Your task to perform on an android device: Open display settings Image 0: 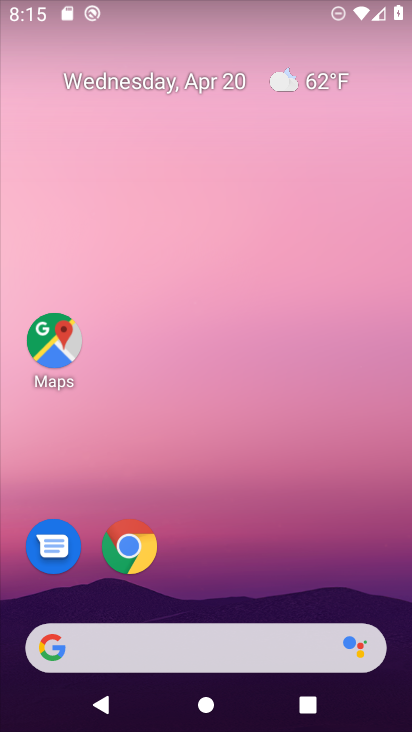
Step 0: drag from (273, 545) to (270, 104)
Your task to perform on an android device: Open display settings Image 1: 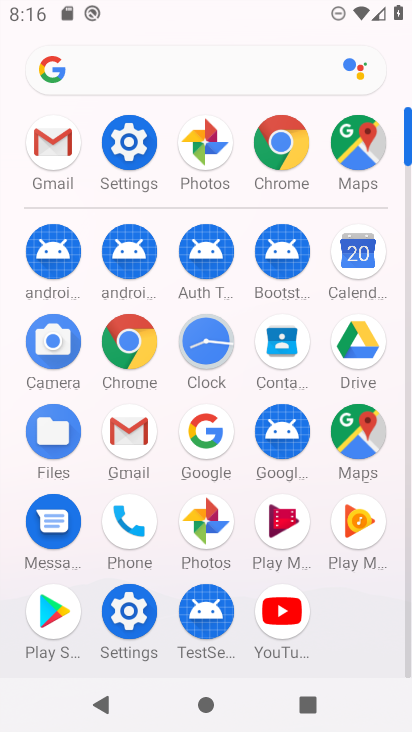
Step 1: click (137, 149)
Your task to perform on an android device: Open display settings Image 2: 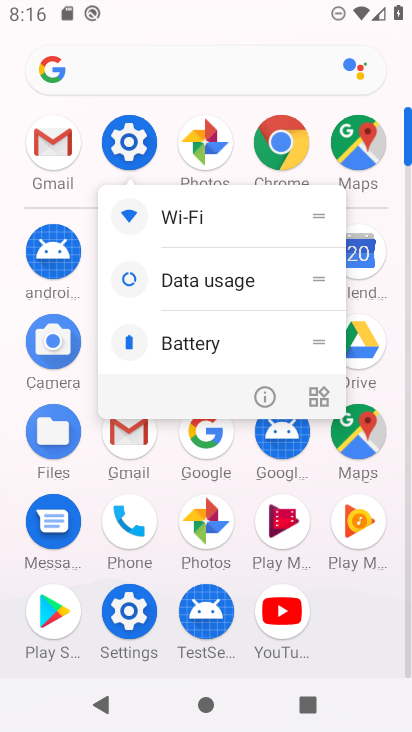
Step 2: click (132, 125)
Your task to perform on an android device: Open display settings Image 3: 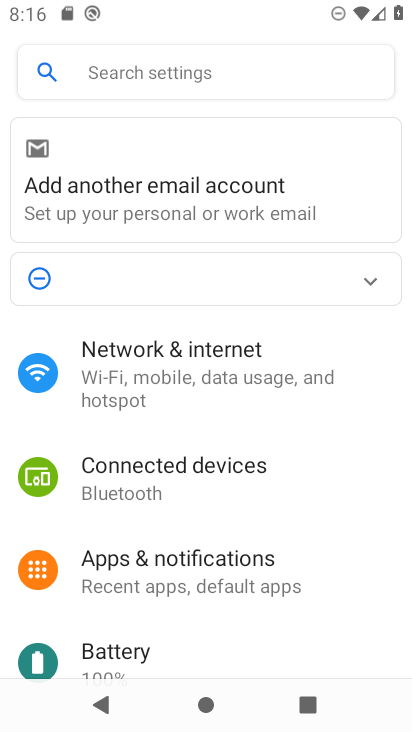
Step 3: drag from (207, 494) to (217, 120)
Your task to perform on an android device: Open display settings Image 4: 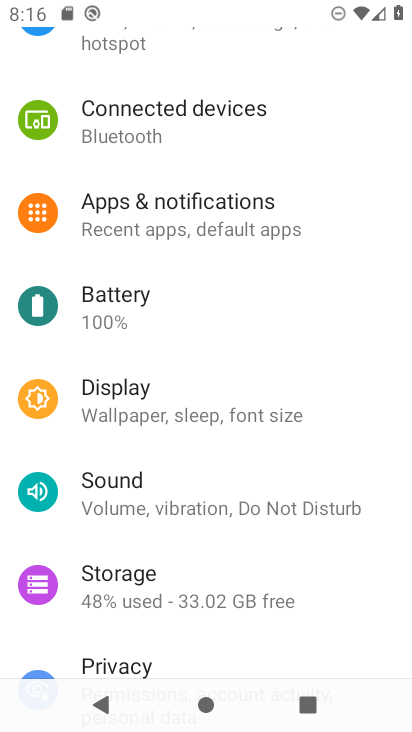
Step 4: click (200, 392)
Your task to perform on an android device: Open display settings Image 5: 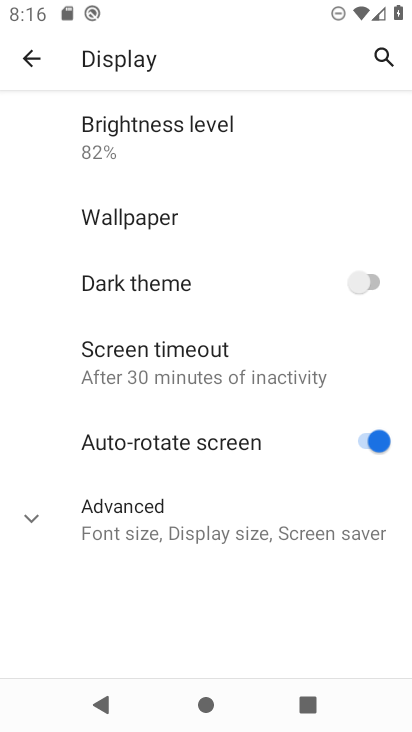
Step 5: task complete